Your task to perform on an android device: Open Google Chrome and click the shortcut for Amazon.com Image 0: 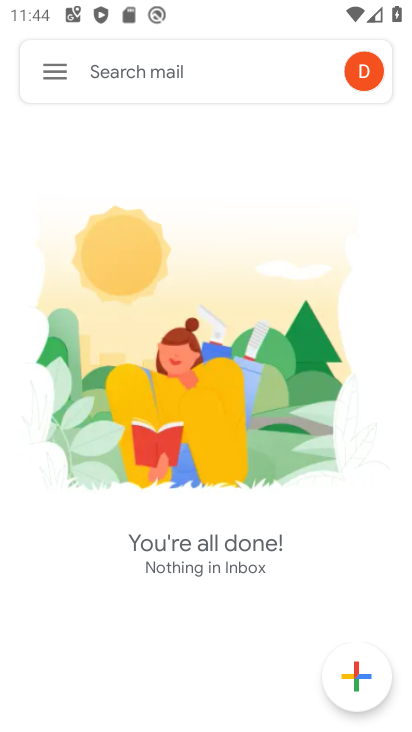
Step 0: press home button
Your task to perform on an android device: Open Google Chrome and click the shortcut for Amazon.com Image 1: 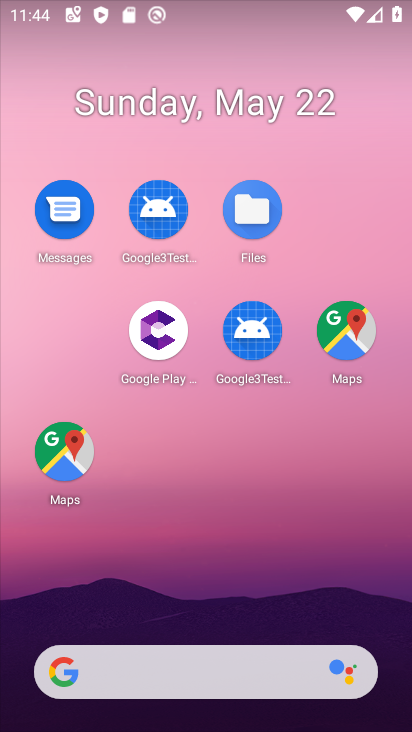
Step 1: drag from (187, 605) to (163, 129)
Your task to perform on an android device: Open Google Chrome and click the shortcut for Amazon.com Image 2: 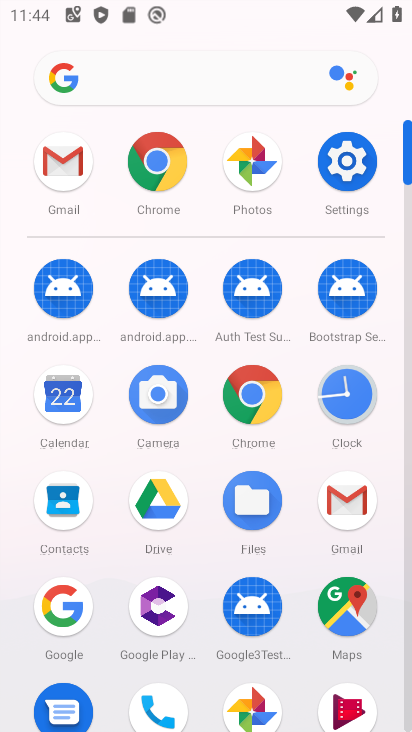
Step 2: click (254, 398)
Your task to perform on an android device: Open Google Chrome and click the shortcut for Amazon.com Image 3: 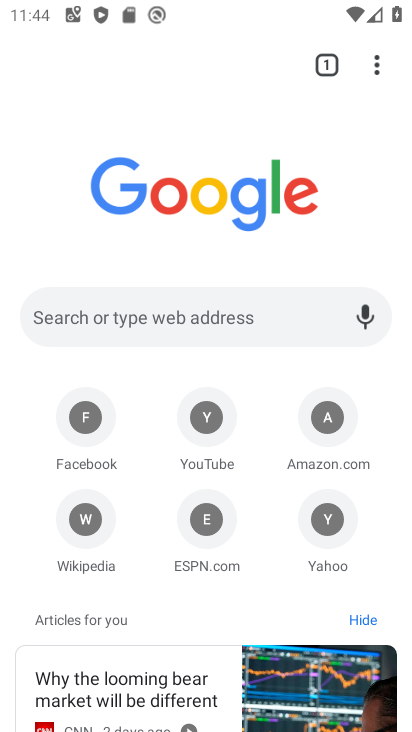
Step 3: click (331, 411)
Your task to perform on an android device: Open Google Chrome and click the shortcut for Amazon.com Image 4: 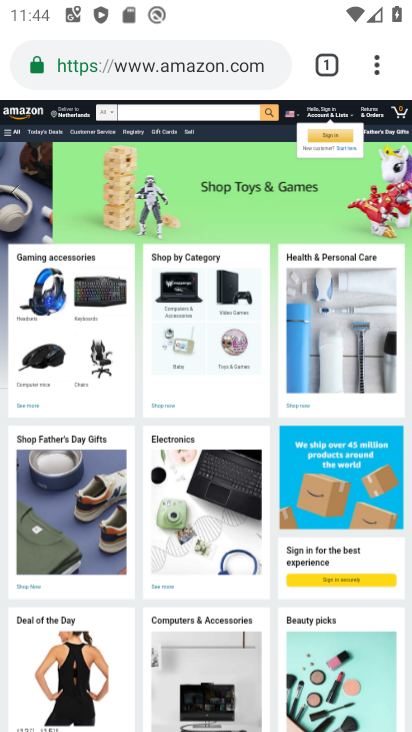
Step 4: task complete